Your task to perform on an android device: clear all cookies in the chrome app Image 0: 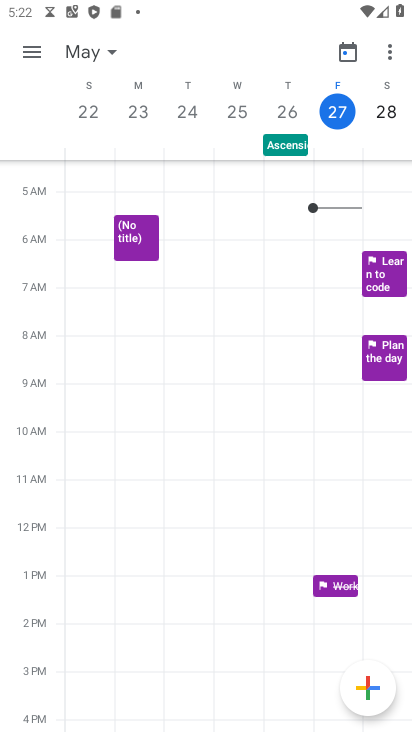
Step 0: press home button
Your task to perform on an android device: clear all cookies in the chrome app Image 1: 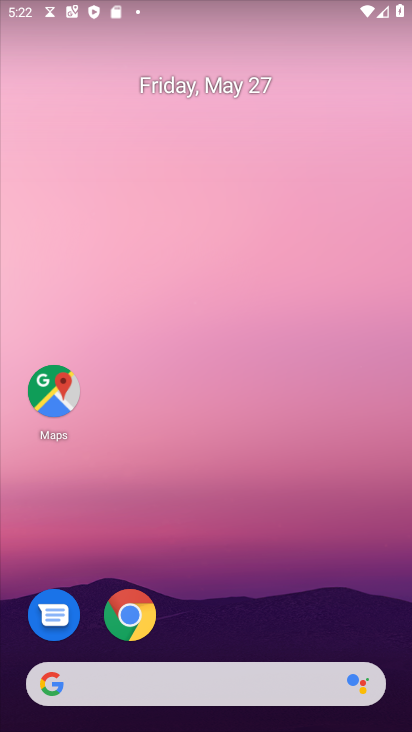
Step 1: click (144, 612)
Your task to perform on an android device: clear all cookies in the chrome app Image 2: 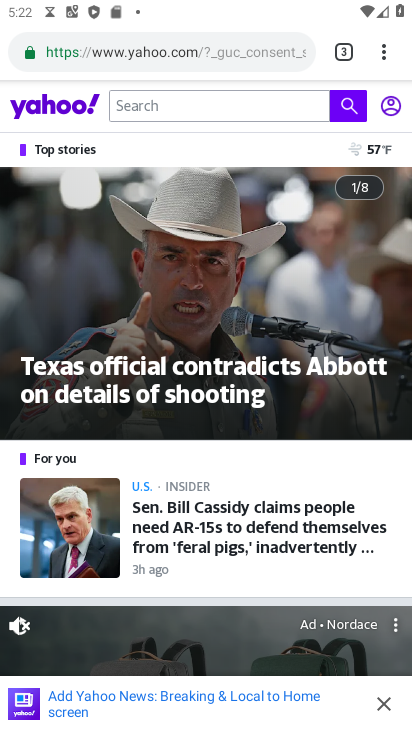
Step 2: click (377, 43)
Your task to perform on an android device: clear all cookies in the chrome app Image 3: 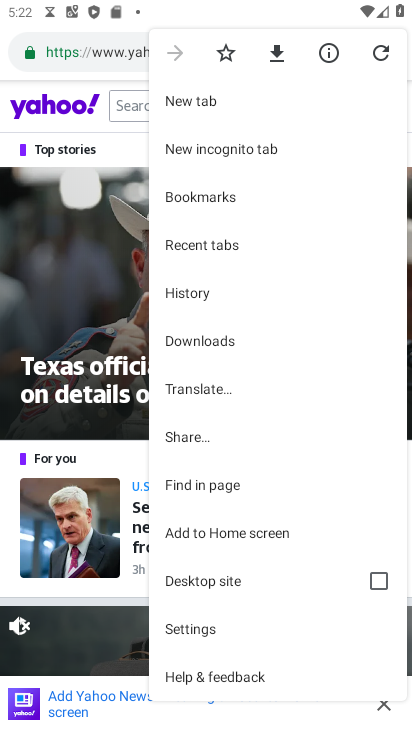
Step 3: click (208, 291)
Your task to perform on an android device: clear all cookies in the chrome app Image 4: 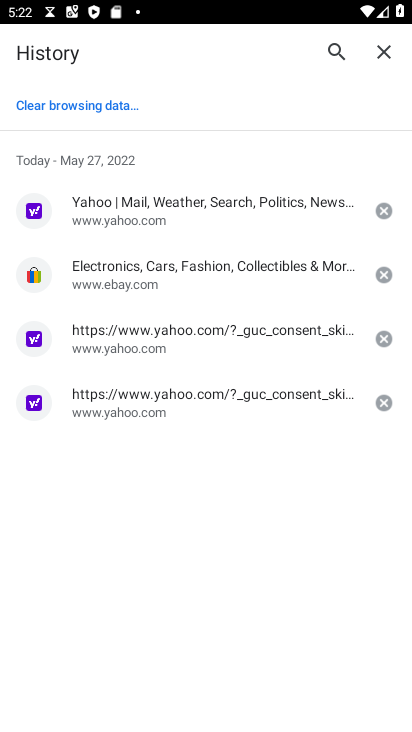
Step 4: click (90, 100)
Your task to perform on an android device: clear all cookies in the chrome app Image 5: 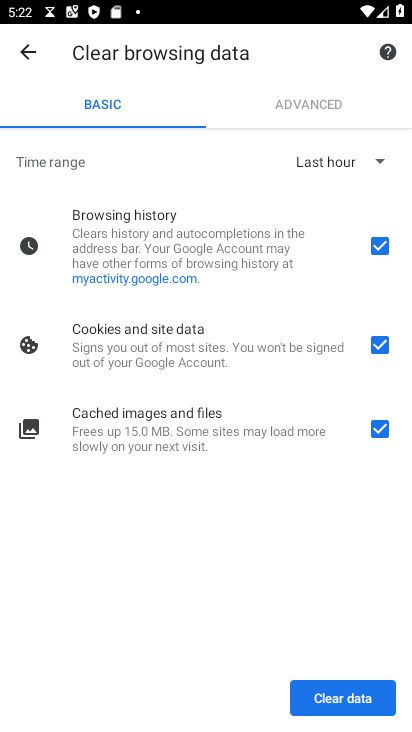
Step 5: click (367, 687)
Your task to perform on an android device: clear all cookies in the chrome app Image 6: 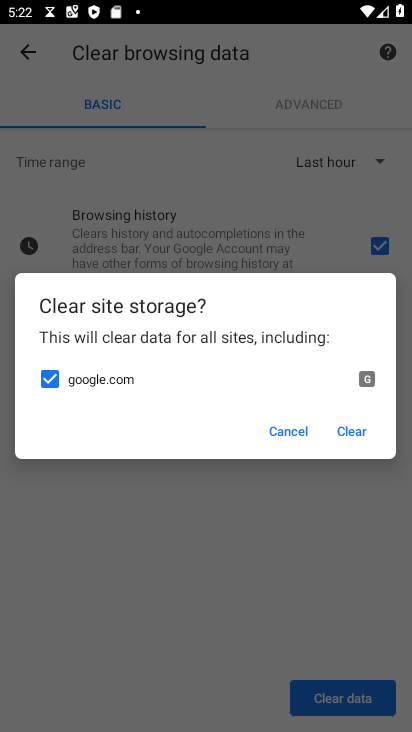
Step 6: click (357, 427)
Your task to perform on an android device: clear all cookies in the chrome app Image 7: 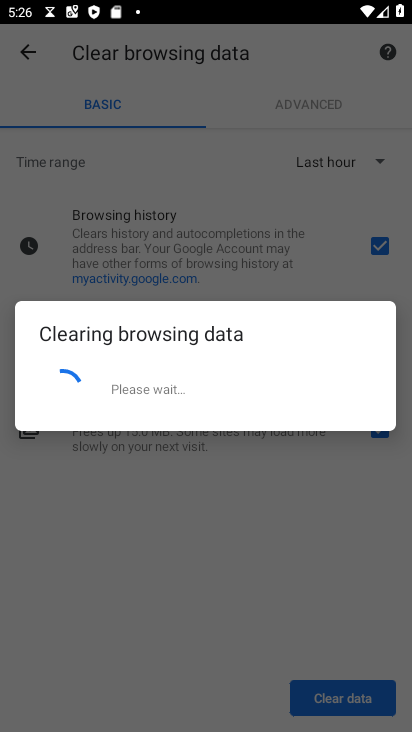
Step 7: task complete